Your task to perform on an android device: delete location history Image 0: 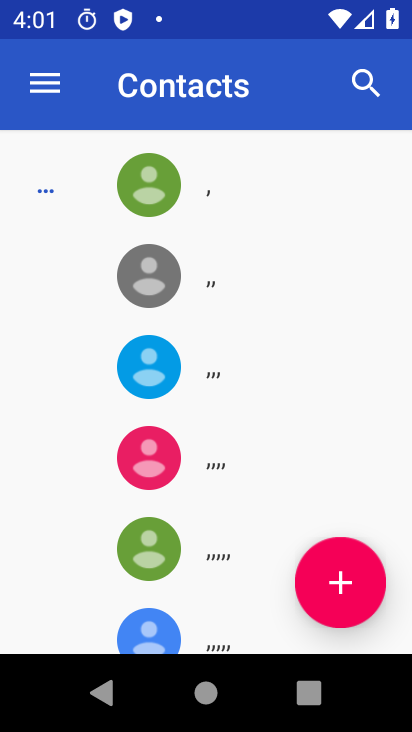
Step 0: press home button
Your task to perform on an android device: delete location history Image 1: 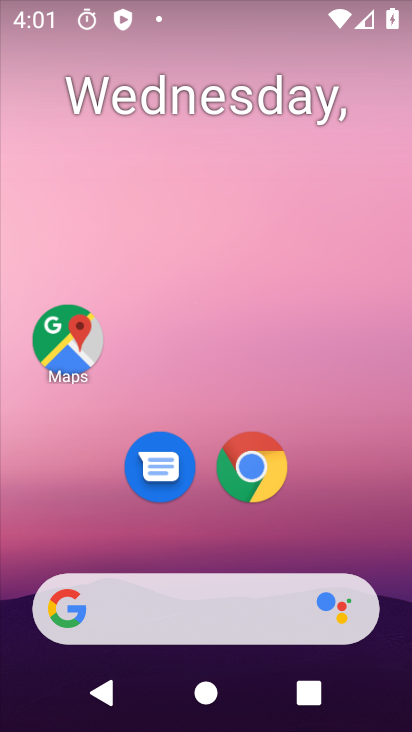
Step 1: drag from (323, 496) to (261, 13)
Your task to perform on an android device: delete location history Image 2: 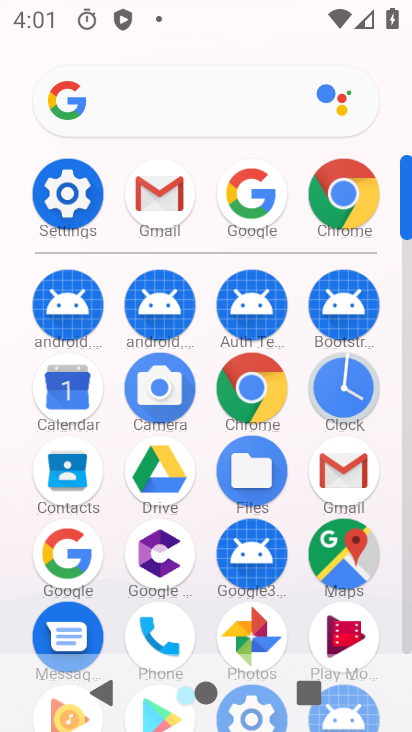
Step 2: click (88, 192)
Your task to perform on an android device: delete location history Image 3: 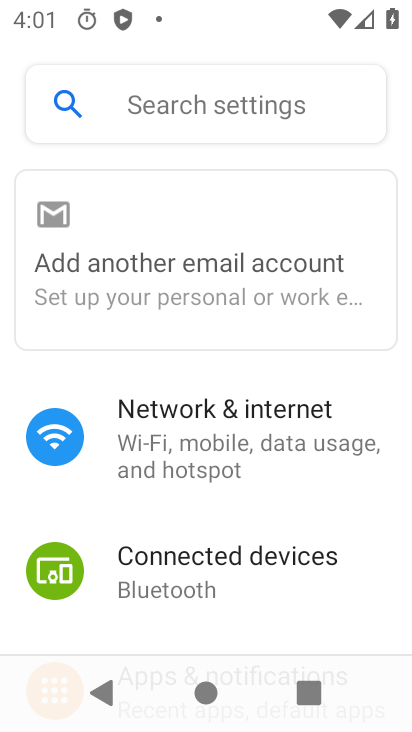
Step 3: drag from (287, 562) to (303, 3)
Your task to perform on an android device: delete location history Image 4: 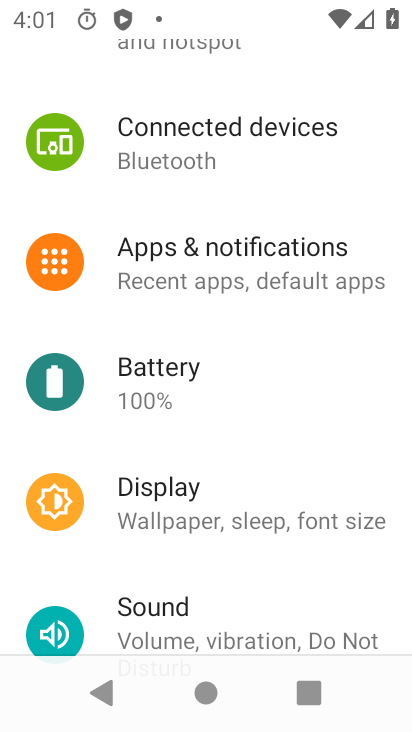
Step 4: drag from (259, 583) to (257, 80)
Your task to perform on an android device: delete location history Image 5: 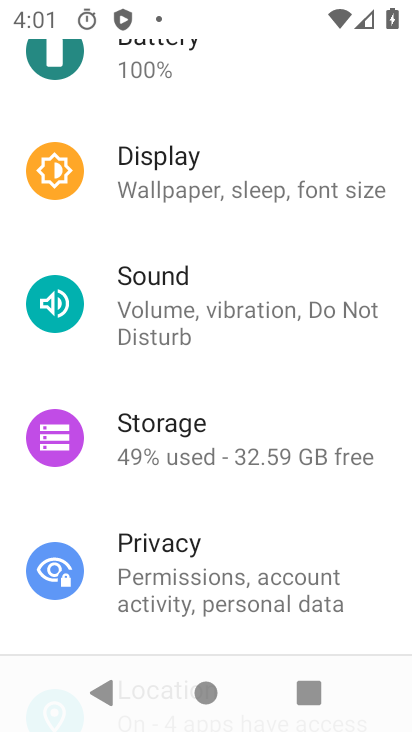
Step 5: drag from (245, 481) to (229, 88)
Your task to perform on an android device: delete location history Image 6: 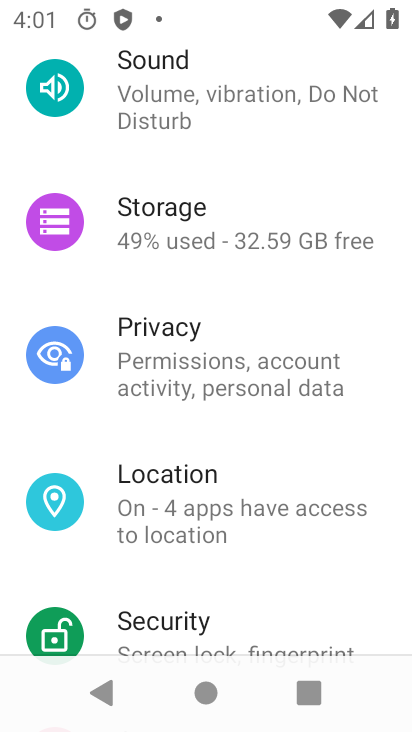
Step 6: click (250, 504)
Your task to perform on an android device: delete location history Image 7: 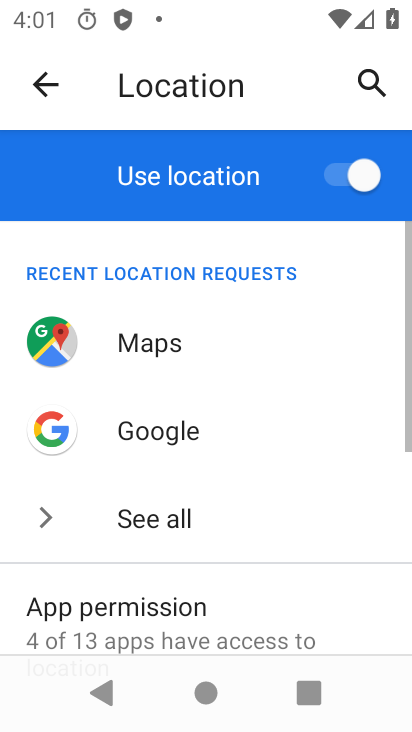
Step 7: drag from (276, 507) to (293, 2)
Your task to perform on an android device: delete location history Image 8: 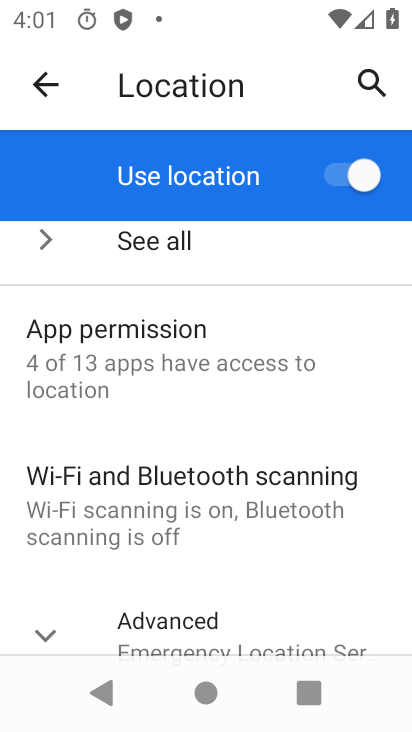
Step 8: drag from (276, 489) to (297, 212)
Your task to perform on an android device: delete location history Image 9: 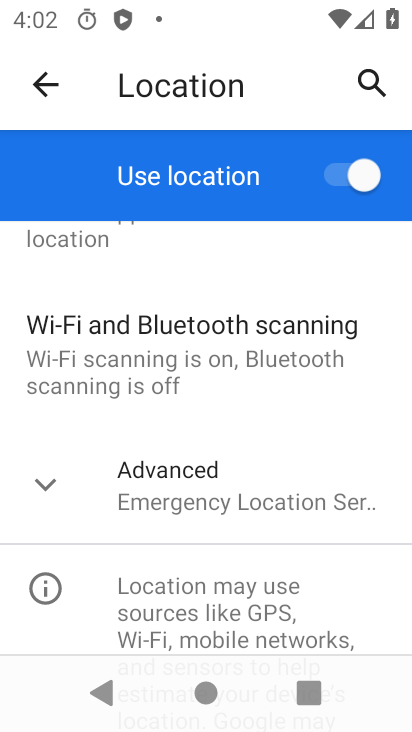
Step 9: drag from (229, 409) to (239, 278)
Your task to perform on an android device: delete location history Image 10: 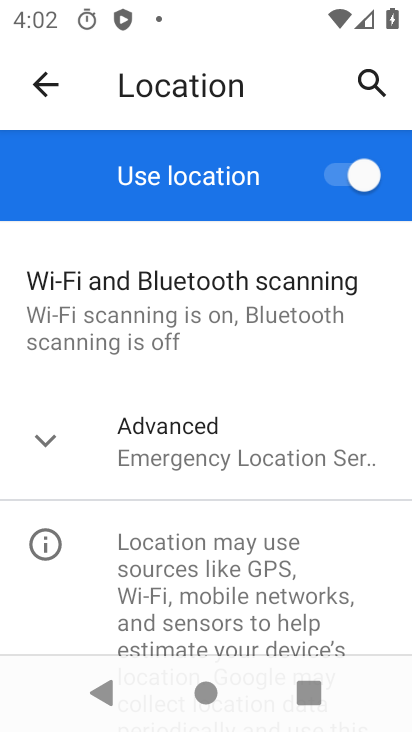
Step 10: click (180, 392)
Your task to perform on an android device: delete location history Image 11: 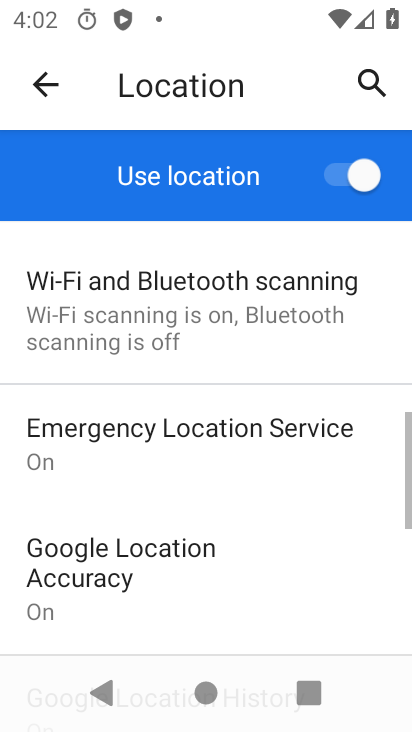
Step 11: drag from (267, 549) to (343, 131)
Your task to perform on an android device: delete location history Image 12: 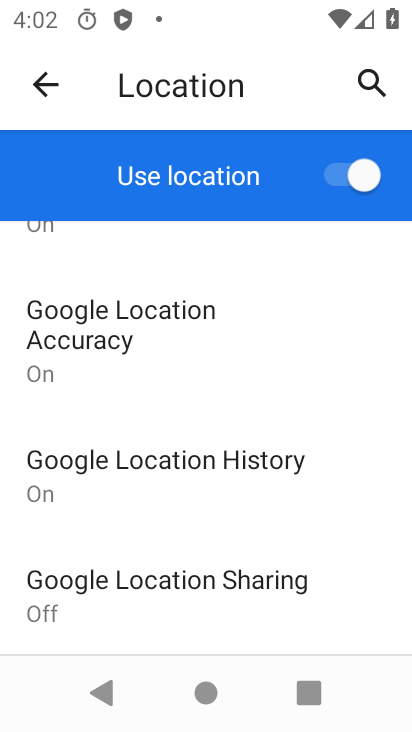
Step 12: click (266, 473)
Your task to perform on an android device: delete location history Image 13: 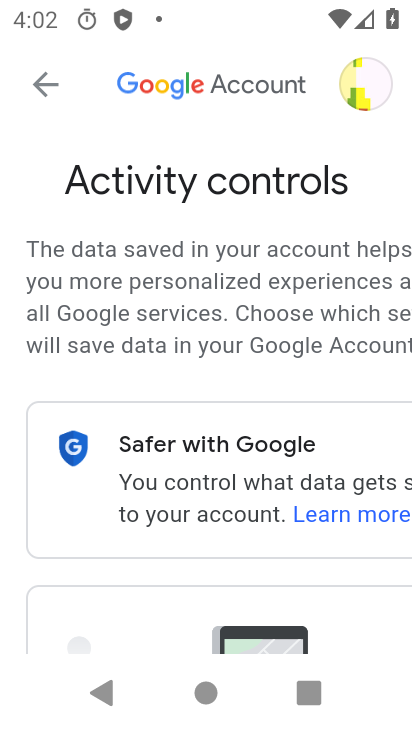
Step 13: drag from (230, 564) to (238, 21)
Your task to perform on an android device: delete location history Image 14: 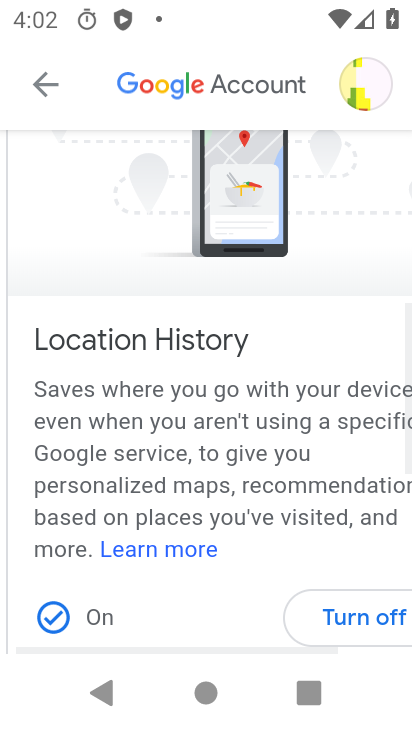
Step 14: drag from (210, 427) to (240, 171)
Your task to perform on an android device: delete location history Image 15: 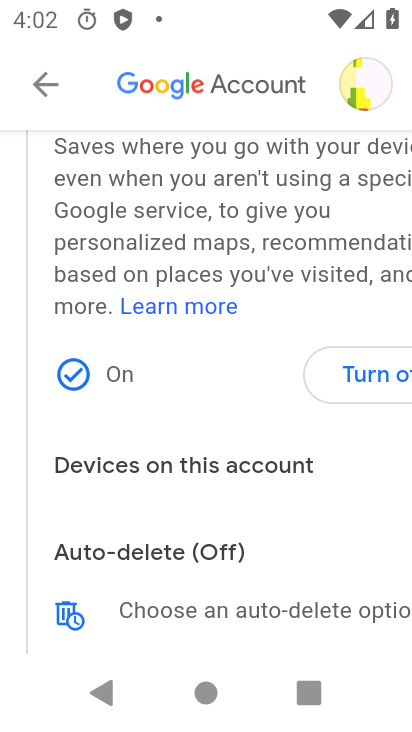
Step 15: click (68, 610)
Your task to perform on an android device: delete location history Image 16: 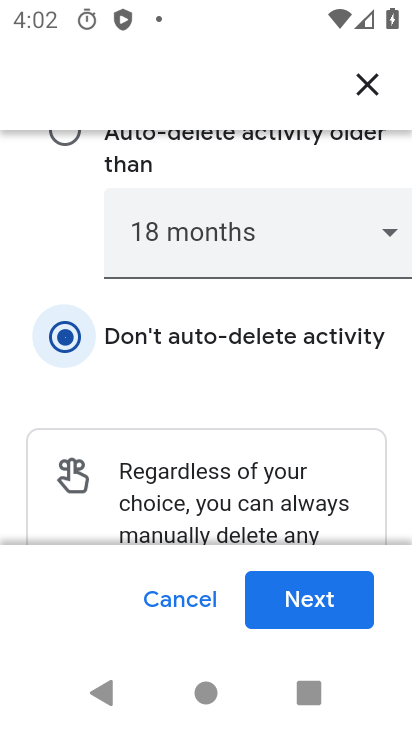
Step 16: click (327, 596)
Your task to perform on an android device: delete location history Image 17: 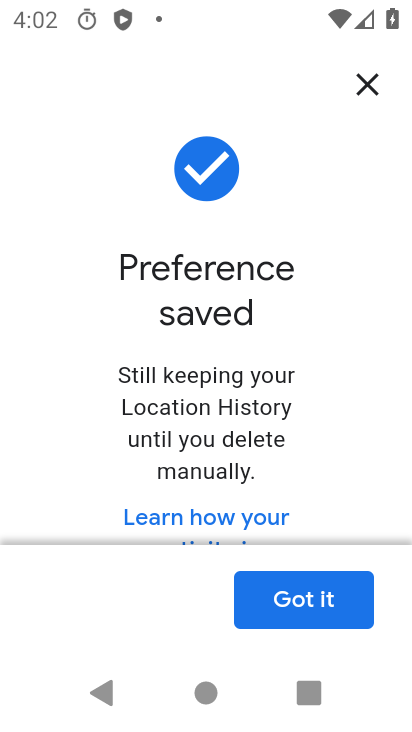
Step 17: click (337, 586)
Your task to perform on an android device: delete location history Image 18: 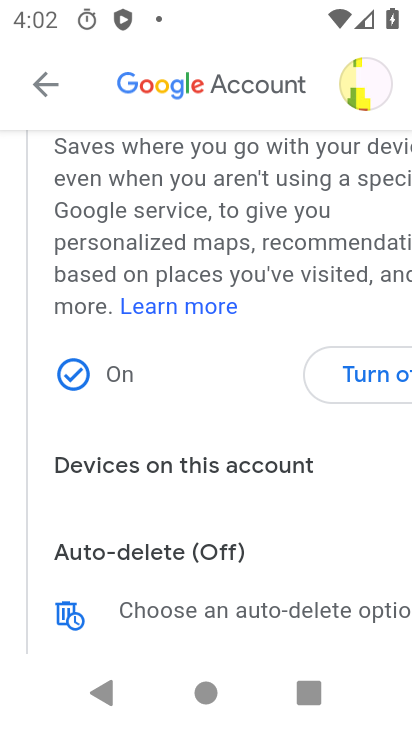
Step 18: task complete